Your task to perform on an android device: What's the weather? Image 0: 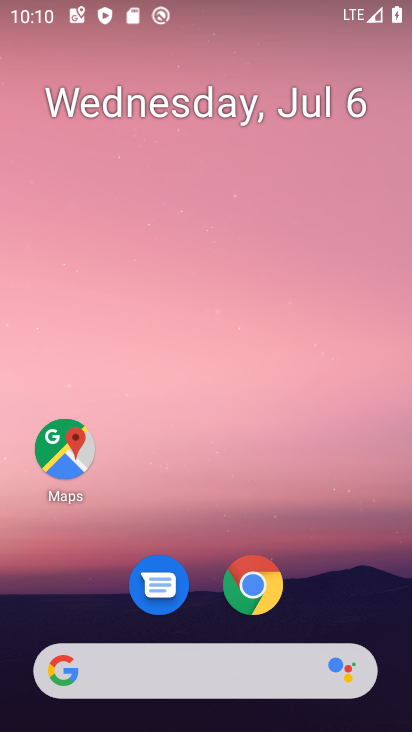
Step 0: drag from (186, 494) to (203, 106)
Your task to perform on an android device: What's the weather? Image 1: 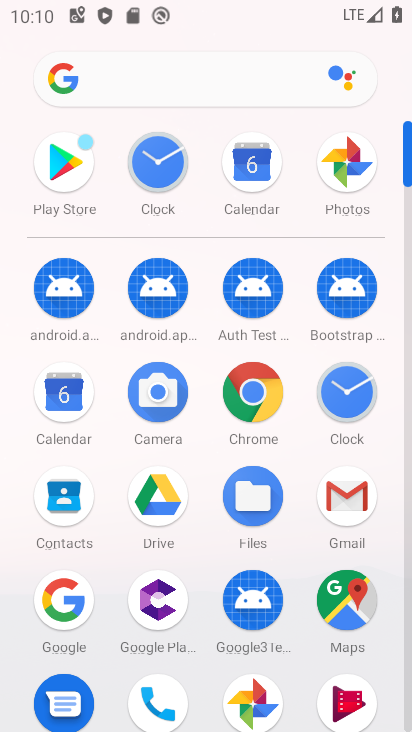
Step 1: click (203, 84)
Your task to perform on an android device: What's the weather? Image 2: 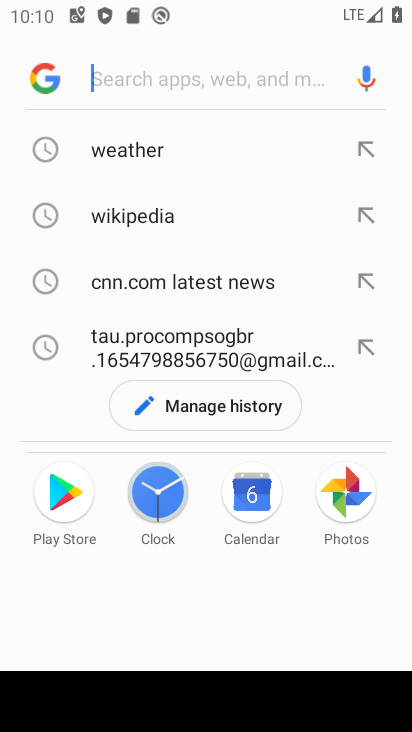
Step 2: click (146, 142)
Your task to perform on an android device: What's the weather? Image 3: 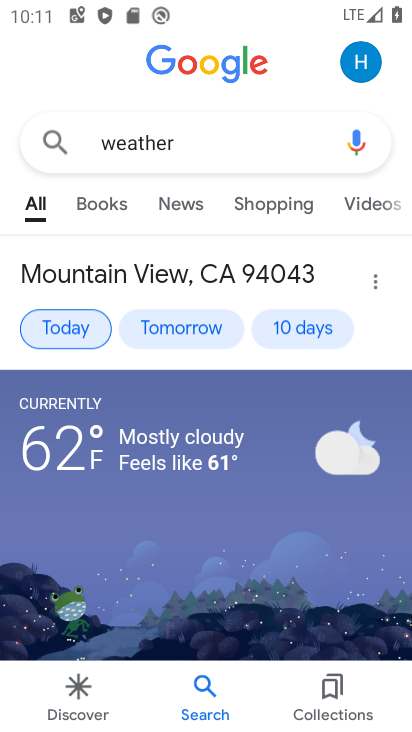
Step 3: click (95, 329)
Your task to perform on an android device: What's the weather? Image 4: 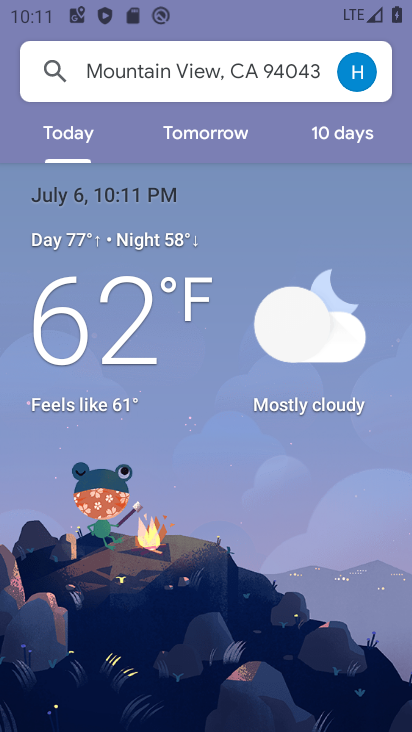
Step 4: task complete